Your task to perform on an android device: create a new album in the google photos Image 0: 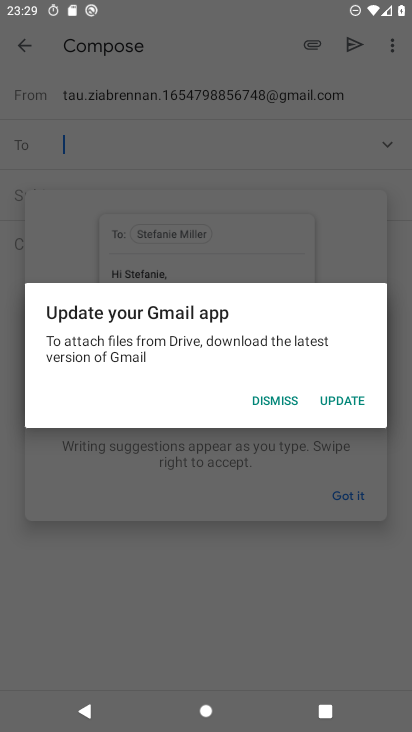
Step 0: press home button
Your task to perform on an android device: create a new album in the google photos Image 1: 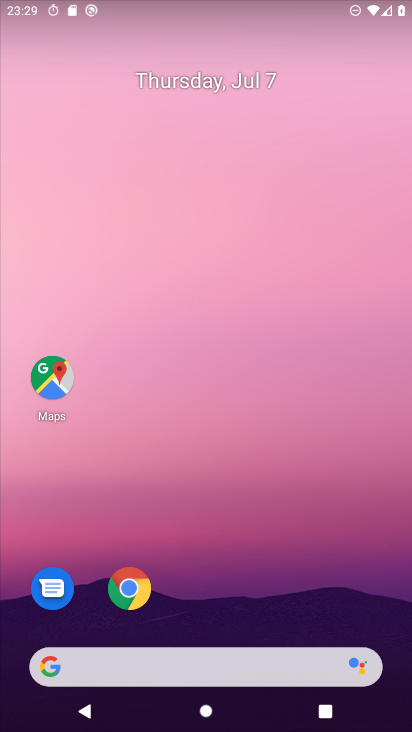
Step 1: drag from (342, 573) to (312, 75)
Your task to perform on an android device: create a new album in the google photos Image 2: 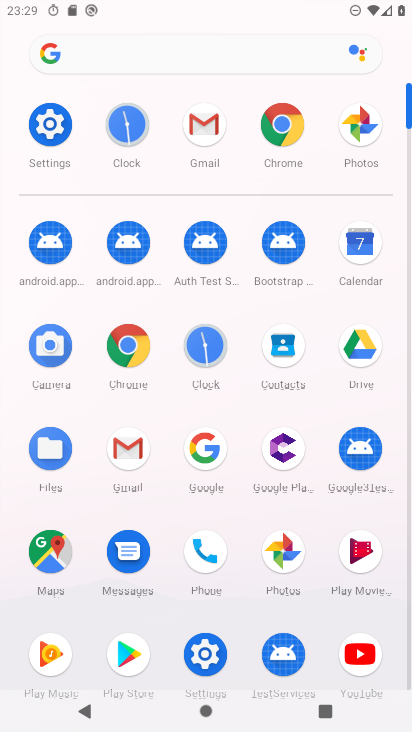
Step 2: click (288, 548)
Your task to perform on an android device: create a new album in the google photos Image 3: 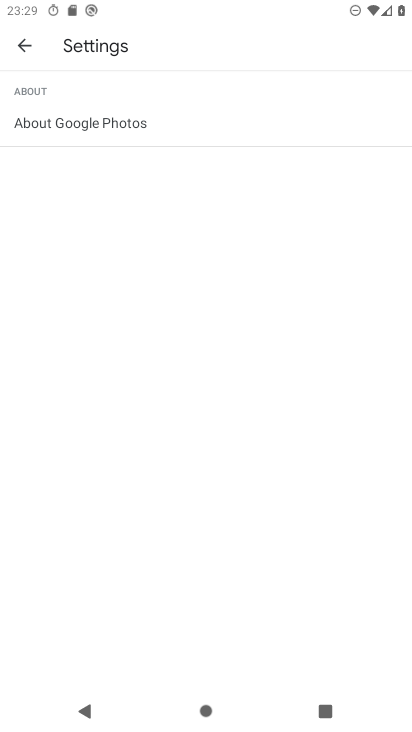
Step 3: click (22, 38)
Your task to perform on an android device: create a new album in the google photos Image 4: 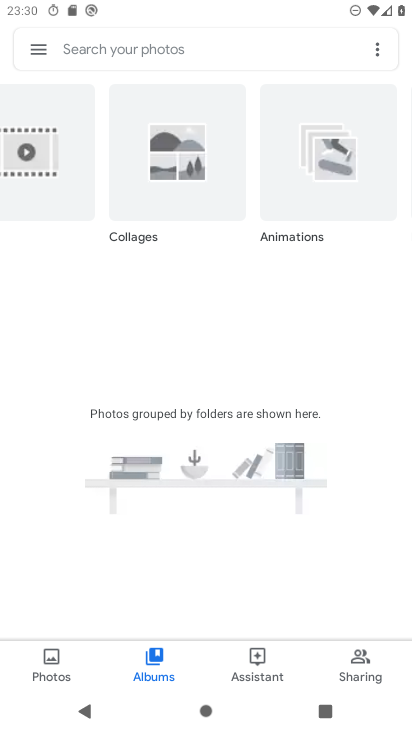
Step 4: click (379, 48)
Your task to perform on an android device: create a new album in the google photos Image 5: 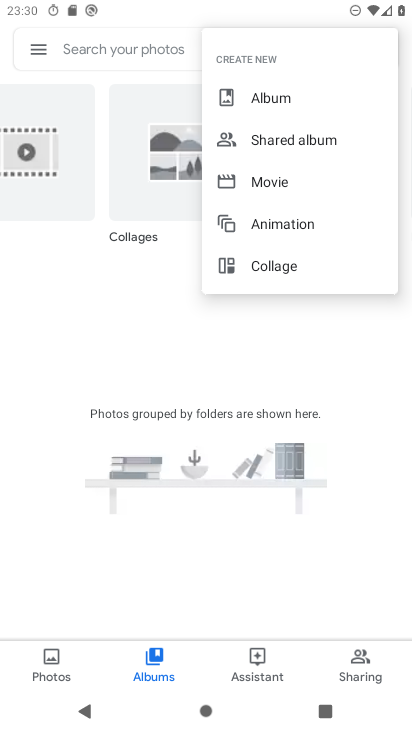
Step 5: click (284, 98)
Your task to perform on an android device: create a new album in the google photos Image 6: 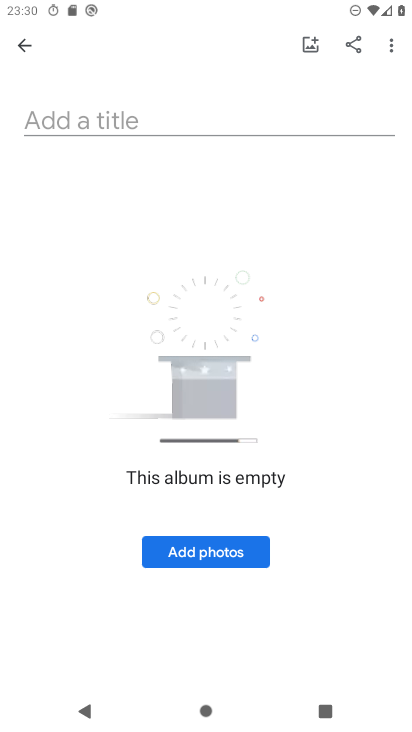
Step 6: click (270, 115)
Your task to perform on an android device: create a new album in the google photos Image 7: 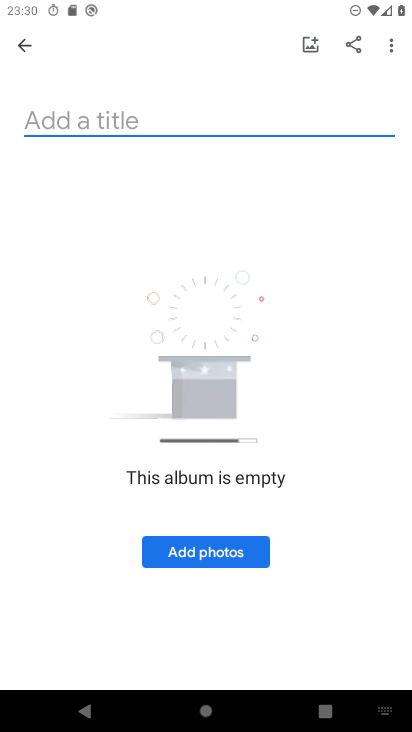
Step 7: type "bhuwan"
Your task to perform on an android device: create a new album in the google photos Image 8: 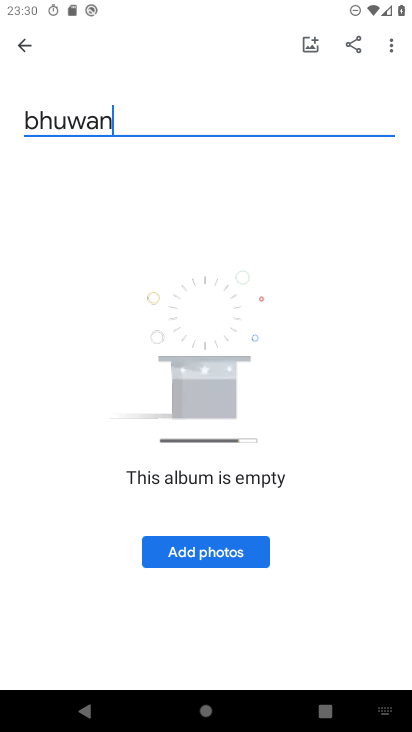
Step 8: press enter
Your task to perform on an android device: create a new album in the google photos Image 9: 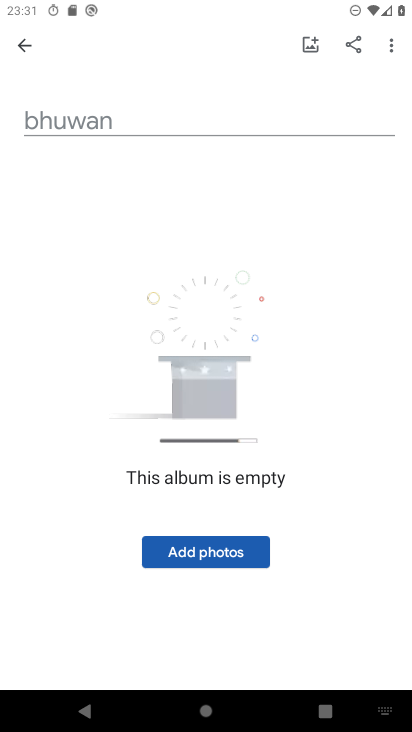
Step 9: press enter
Your task to perform on an android device: create a new album in the google photos Image 10: 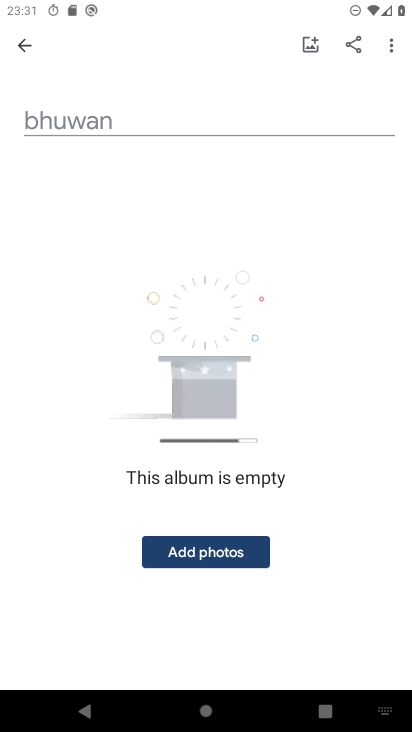
Step 10: click (197, 554)
Your task to perform on an android device: create a new album in the google photos Image 11: 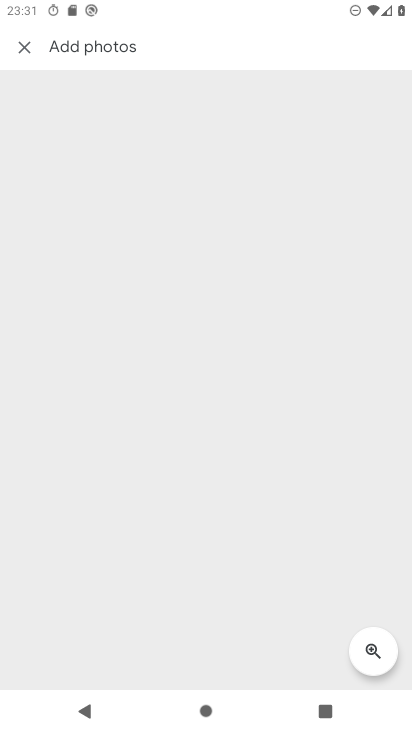
Step 11: click (229, 367)
Your task to perform on an android device: create a new album in the google photos Image 12: 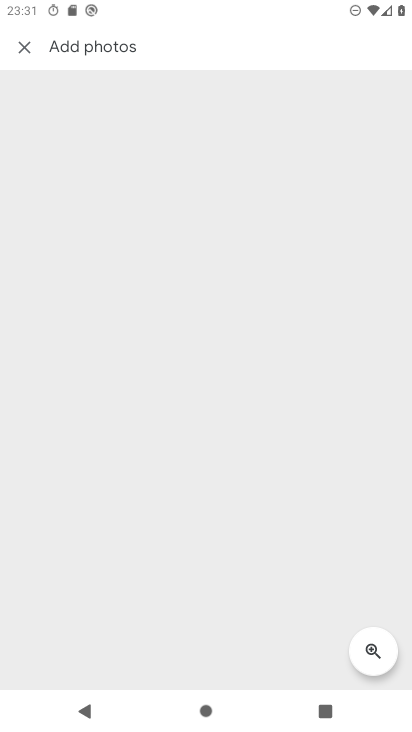
Step 12: task complete